Your task to perform on an android device: remove spam from my inbox in the gmail app Image 0: 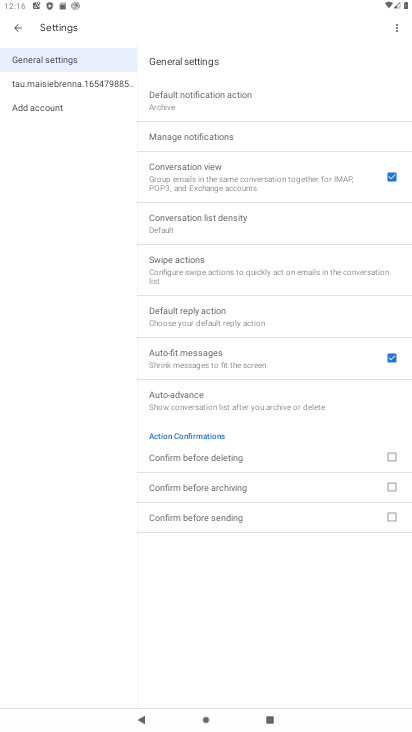
Step 0: press home button
Your task to perform on an android device: remove spam from my inbox in the gmail app Image 1: 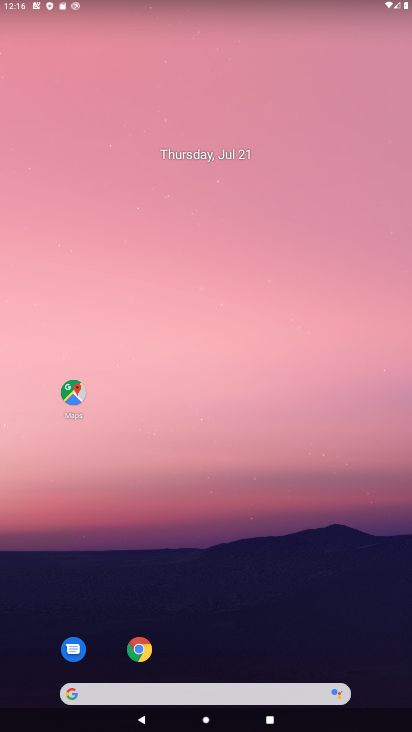
Step 1: drag from (386, 679) to (364, 110)
Your task to perform on an android device: remove spam from my inbox in the gmail app Image 2: 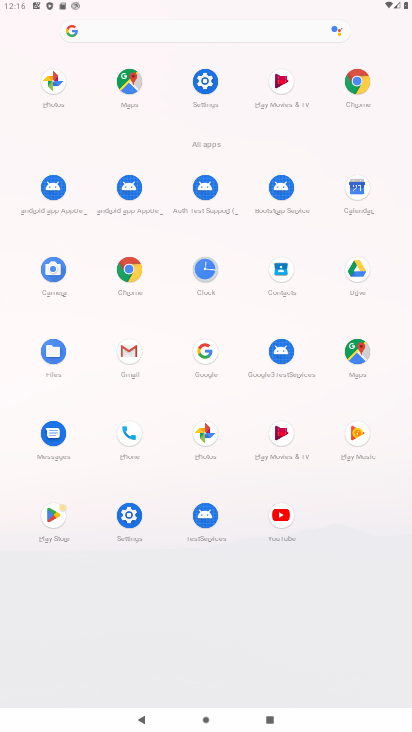
Step 2: click (127, 352)
Your task to perform on an android device: remove spam from my inbox in the gmail app Image 3: 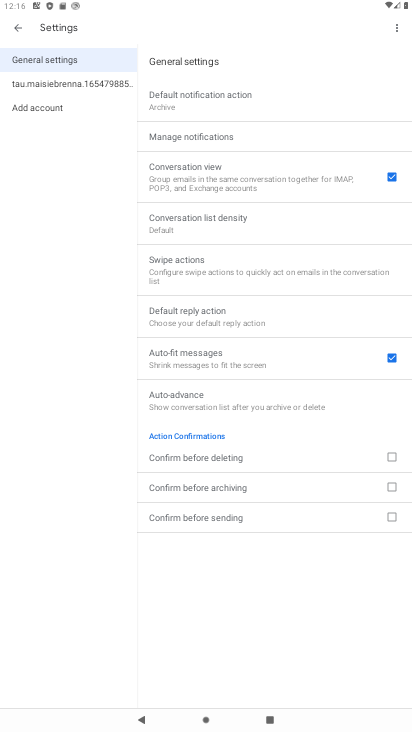
Step 3: press back button
Your task to perform on an android device: remove spam from my inbox in the gmail app Image 4: 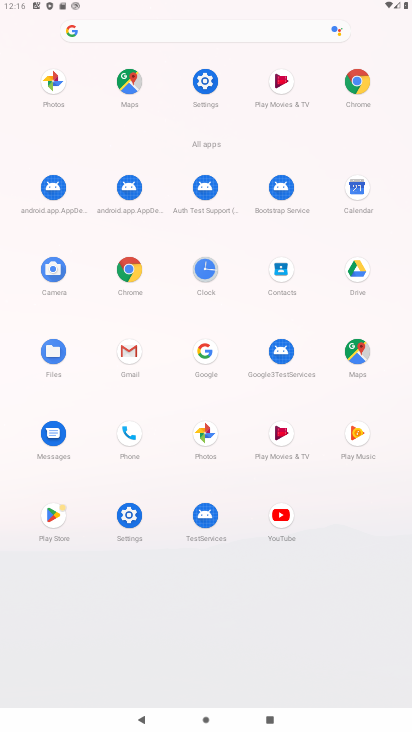
Step 4: click (126, 352)
Your task to perform on an android device: remove spam from my inbox in the gmail app Image 5: 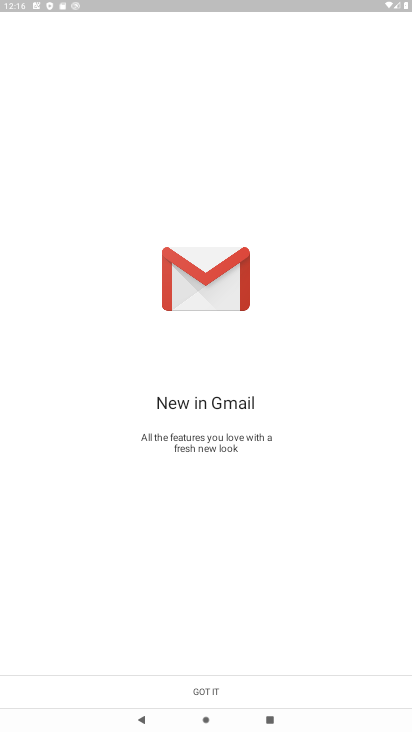
Step 5: click (209, 688)
Your task to perform on an android device: remove spam from my inbox in the gmail app Image 6: 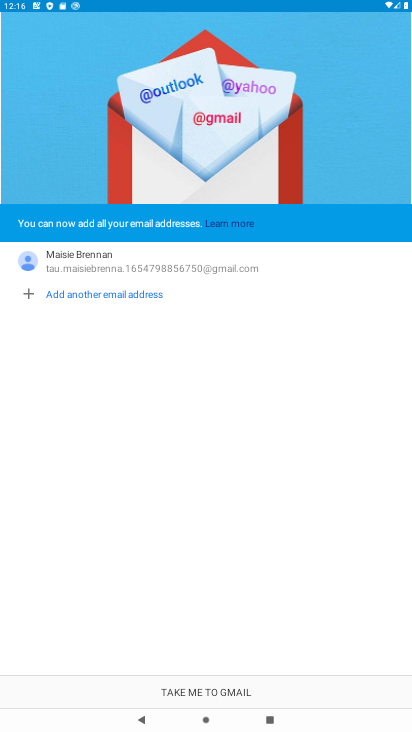
Step 6: click (212, 685)
Your task to perform on an android device: remove spam from my inbox in the gmail app Image 7: 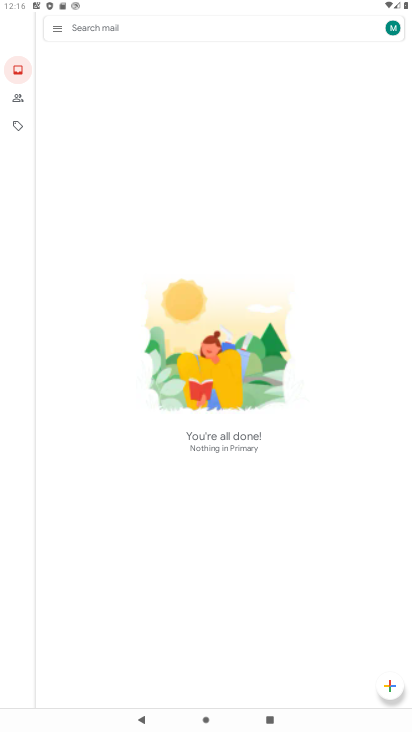
Step 7: click (52, 30)
Your task to perform on an android device: remove spam from my inbox in the gmail app Image 8: 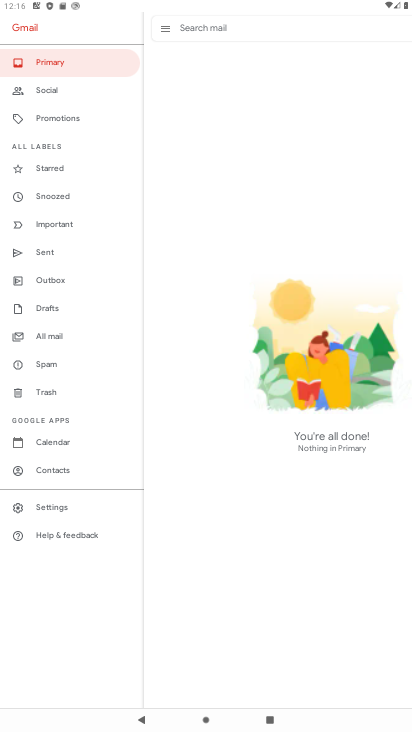
Step 8: click (44, 365)
Your task to perform on an android device: remove spam from my inbox in the gmail app Image 9: 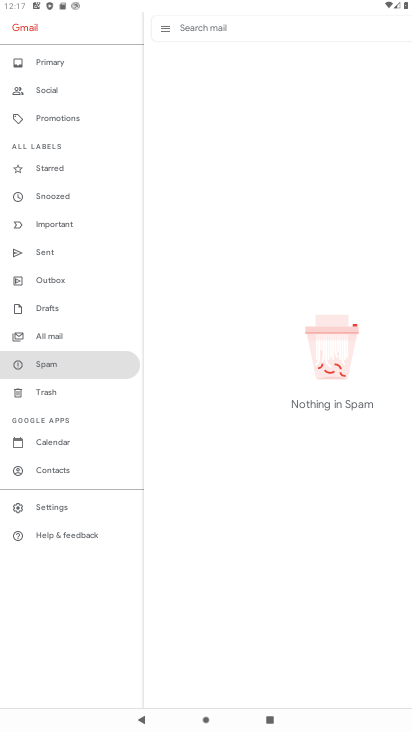
Step 9: task complete